Your task to perform on an android device: Go to notification settings Image 0: 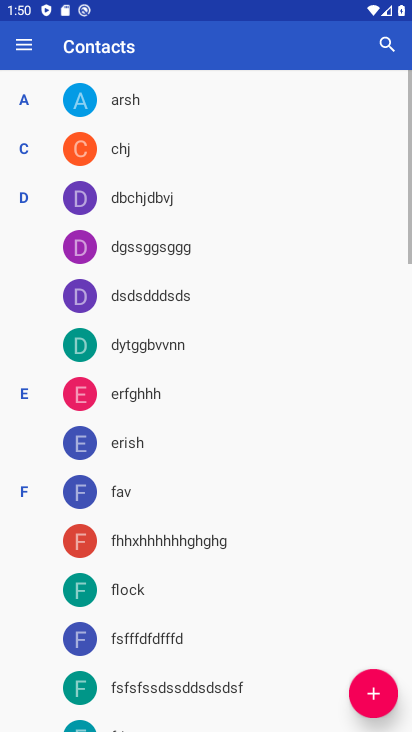
Step 0: click (176, 692)
Your task to perform on an android device: Go to notification settings Image 1: 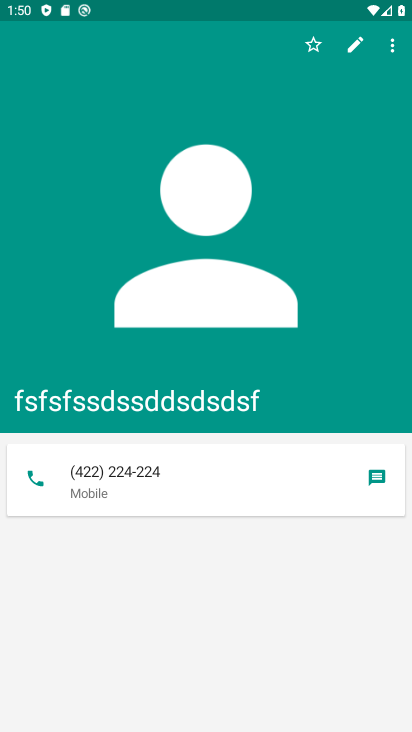
Step 1: press home button
Your task to perform on an android device: Go to notification settings Image 2: 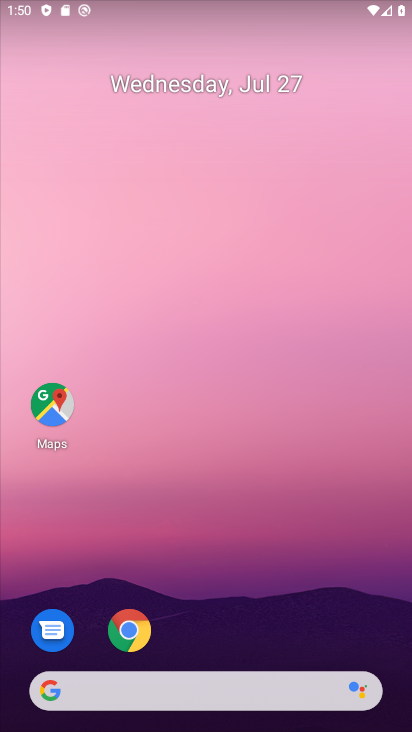
Step 2: drag from (273, 630) to (231, 72)
Your task to perform on an android device: Go to notification settings Image 3: 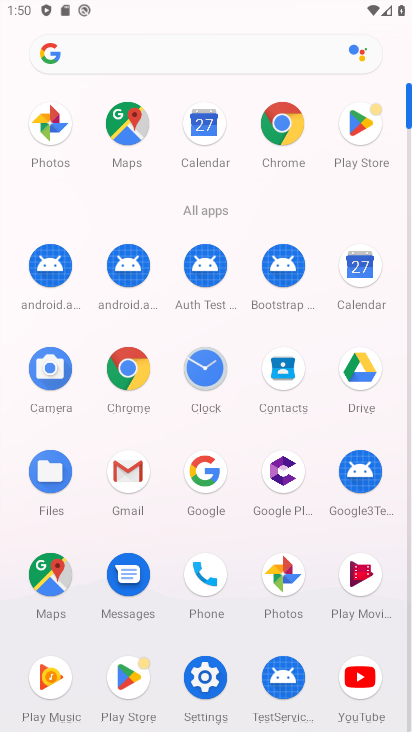
Step 3: click (208, 678)
Your task to perform on an android device: Go to notification settings Image 4: 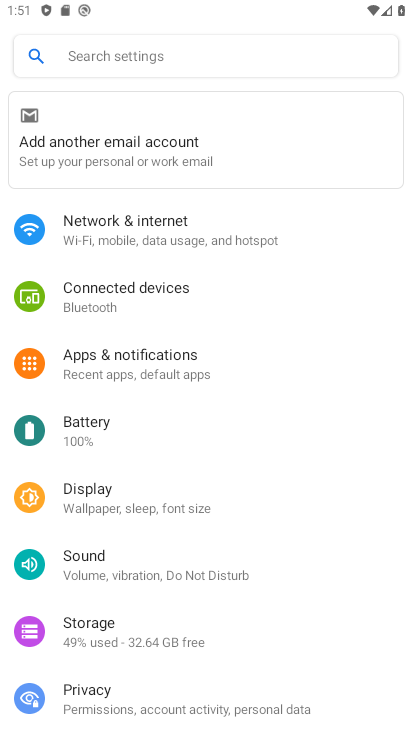
Step 4: click (147, 379)
Your task to perform on an android device: Go to notification settings Image 5: 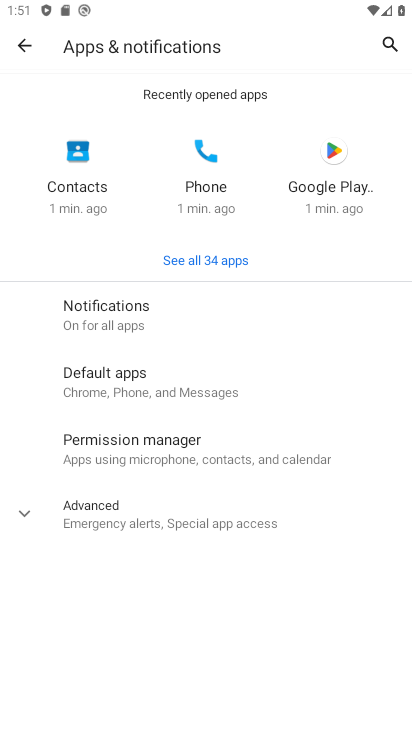
Step 5: click (179, 306)
Your task to perform on an android device: Go to notification settings Image 6: 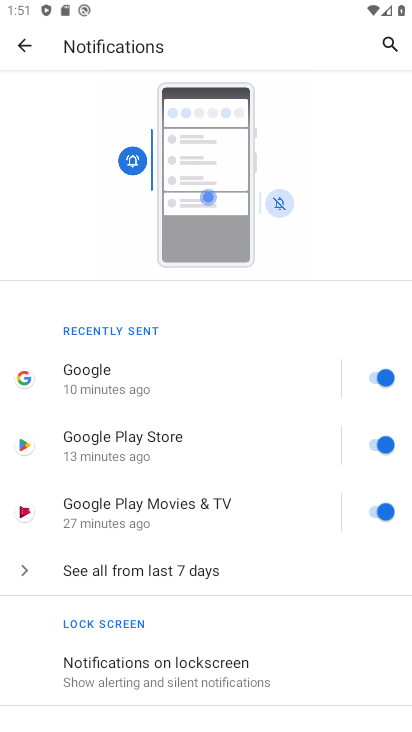
Step 6: task complete